Your task to perform on an android device: Show me recent news Image 0: 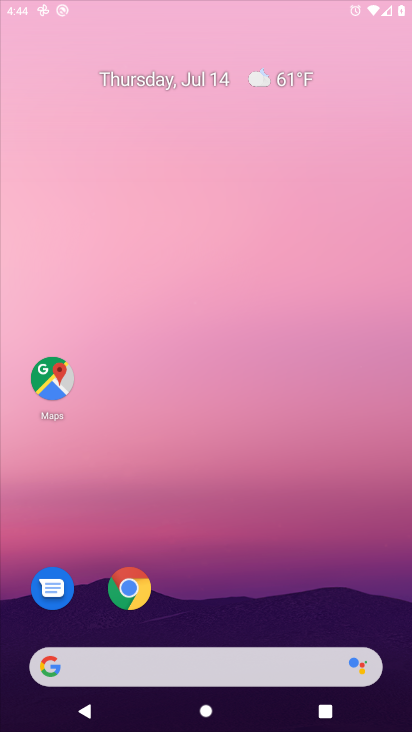
Step 0: press home button
Your task to perform on an android device: Show me recent news Image 1: 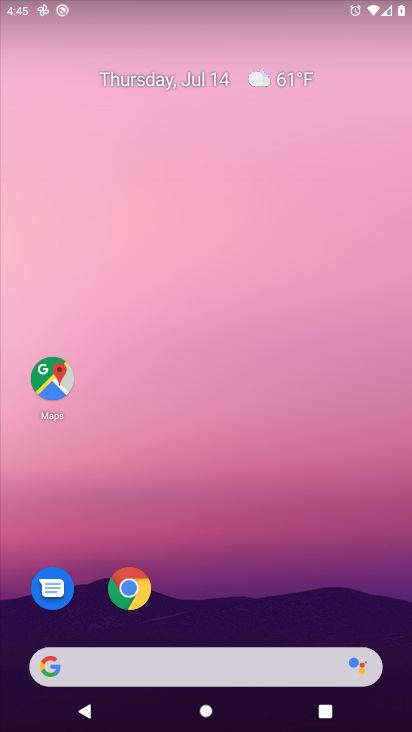
Step 1: click (46, 667)
Your task to perform on an android device: Show me recent news Image 2: 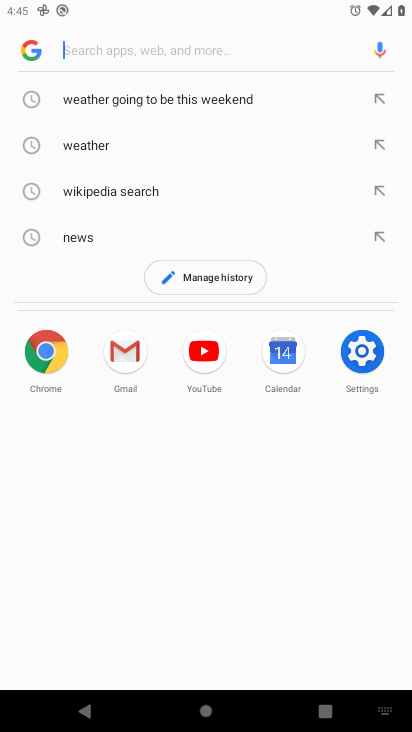
Step 2: type " recent news"
Your task to perform on an android device: Show me recent news Image 3: 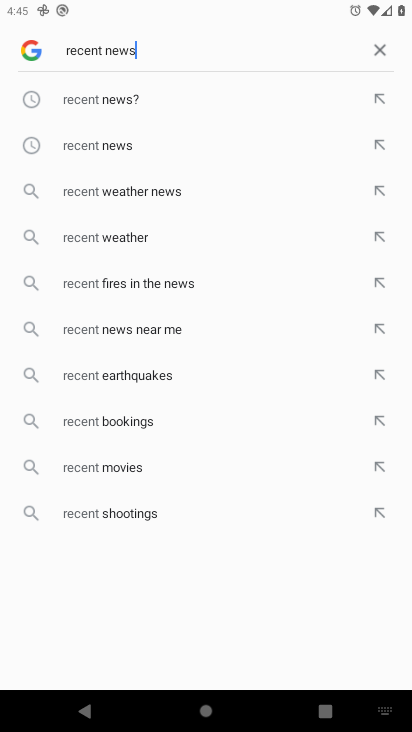
Step 3: press enter
Your task to perform on an android device: Show me recent news Image 4: 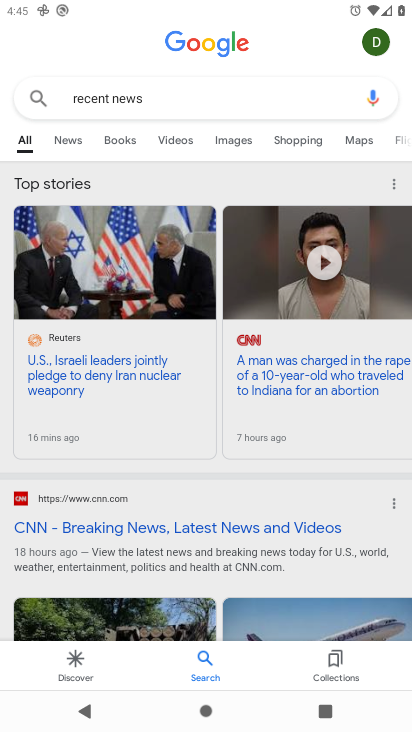
Step 4: task complete